Your task to perform on an android device: all mails in gmail Image 0: 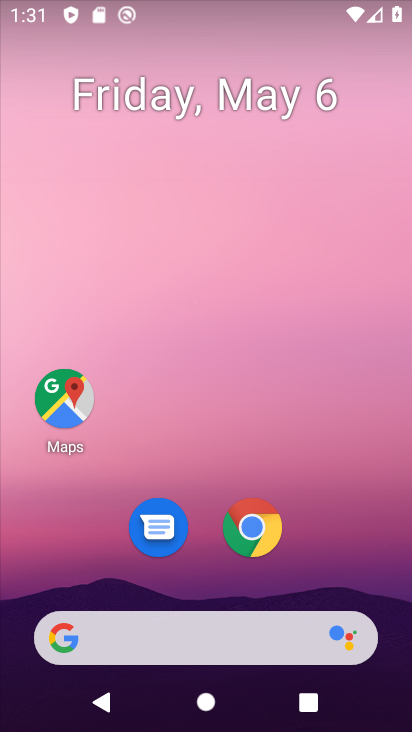
Step 0: drag from (153, 603) to (235, 54)
Your task to perform on an android device: all mails in gmail Image 1: 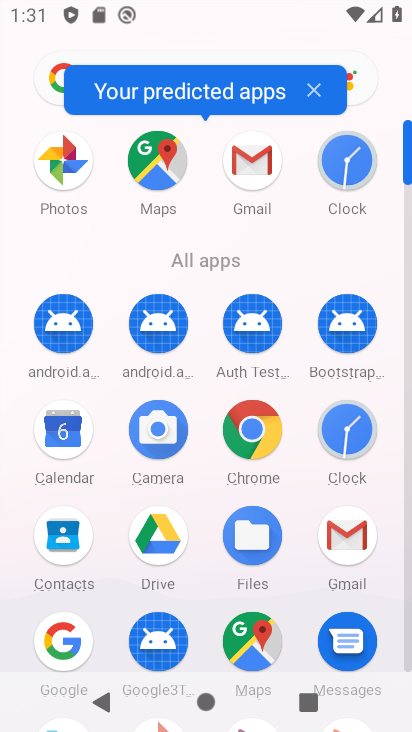
Step 1: click (347, 533)
Your task to perform on an android device: all mails in gmail Image 2: 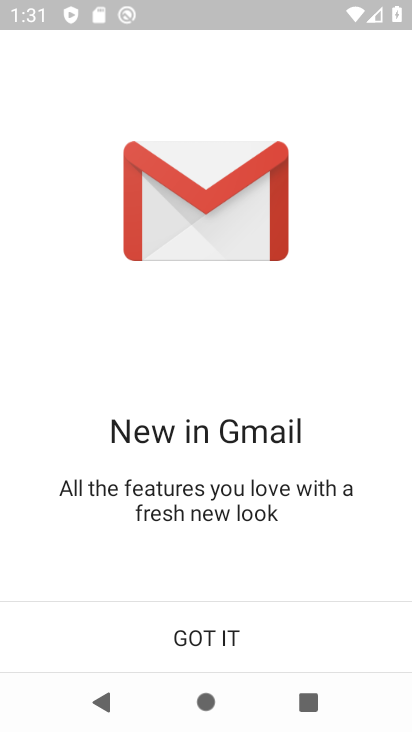
Step 2: click (225, 637)
Your task to perform on an android device: all mails in gmail Image 3: 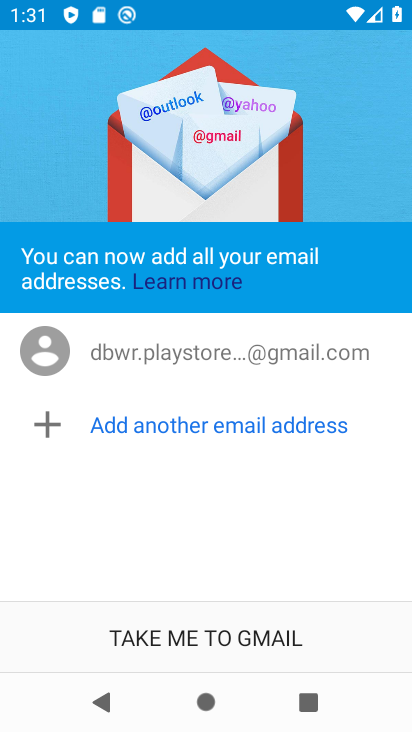
Step 3: click (221, 641)
Your task to perform on an android device: all mails in gmail Image 4: 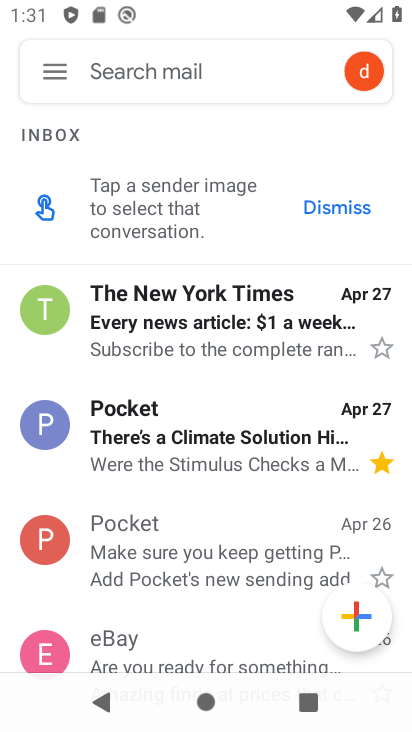
Step 4: click (63, 85)
Your task to perform on an android device: all mails in gmail Image 5: 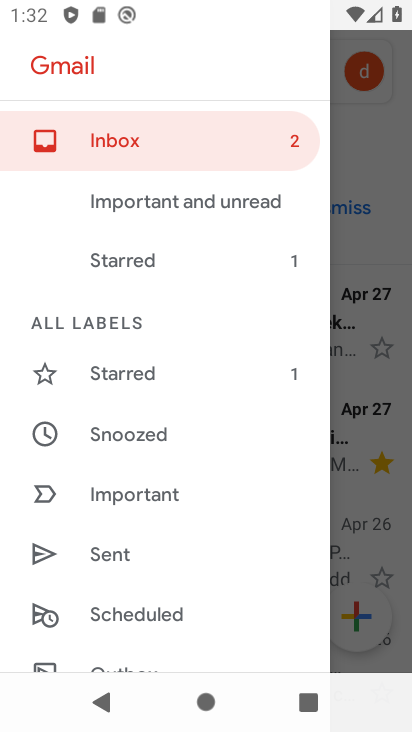
Step 5: drag from (131, 637) to (218, 234)
Your task to perform on an android device: all mails in gmail Image 6: 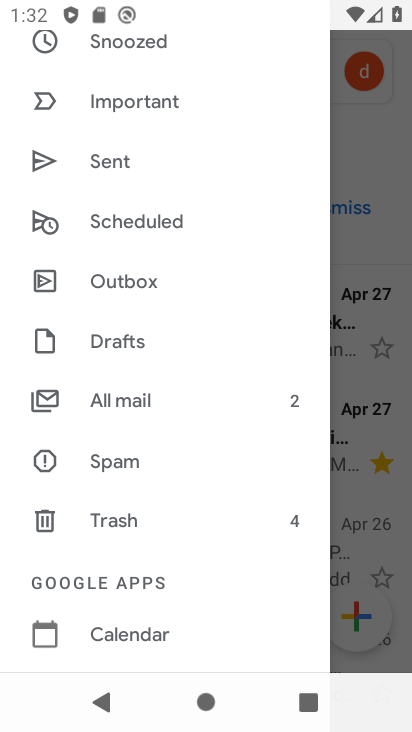
Step 6: click (156, 400)
Your task to perform on an android device: all mails in gmail Image 7: 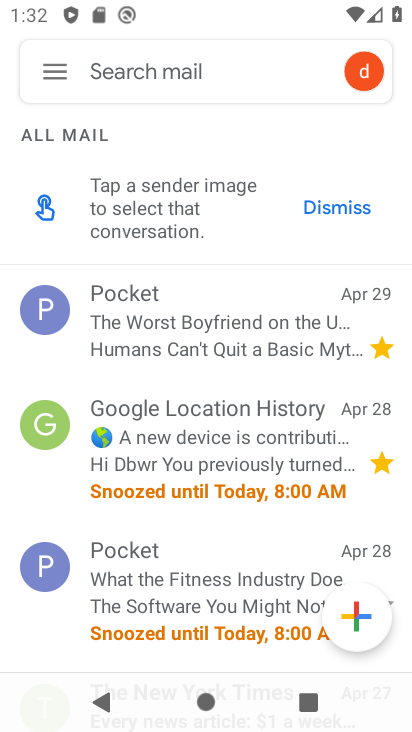
Step 7: task complete